Your task to perform on an android device: toggle improve location accuracy Image 0: 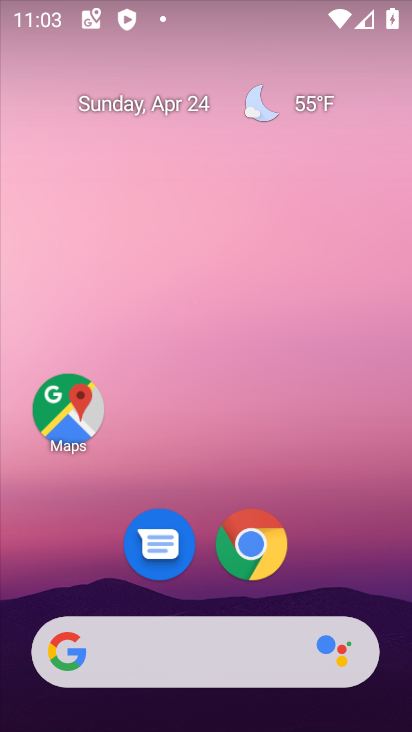
Step 0: drag from (327, 404) to (252, 89)
Your task to perform on an android device: toggle improve location accuracy Image 1: 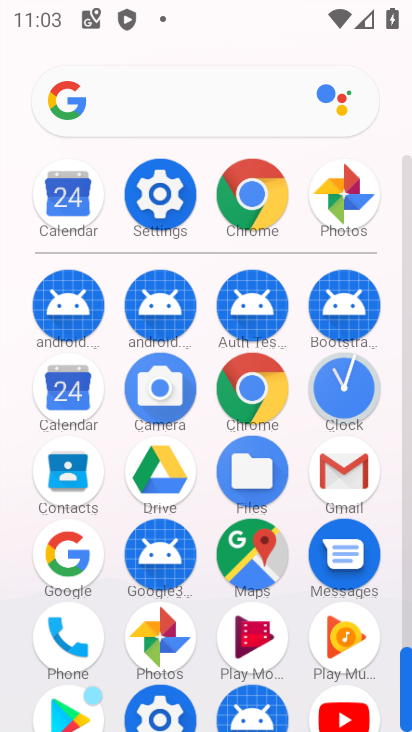
Step 1: click (165, 191)
Your task to perform on an android device: toggle improve location accuracy Image 2: 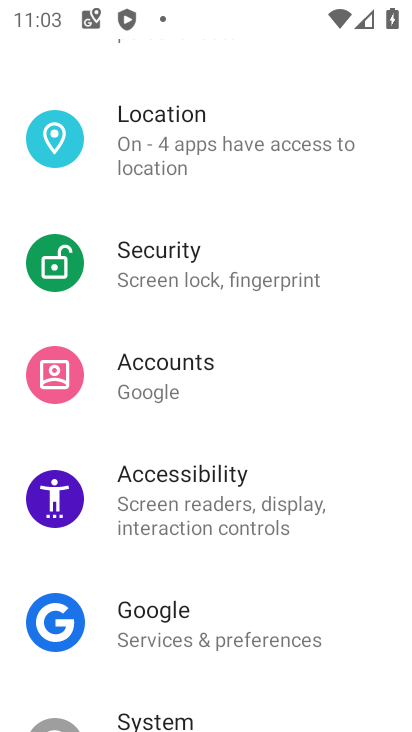
Step 2: click (214, 154)
Your task to perform on an android device: toggle improve location accuracy Image 3: 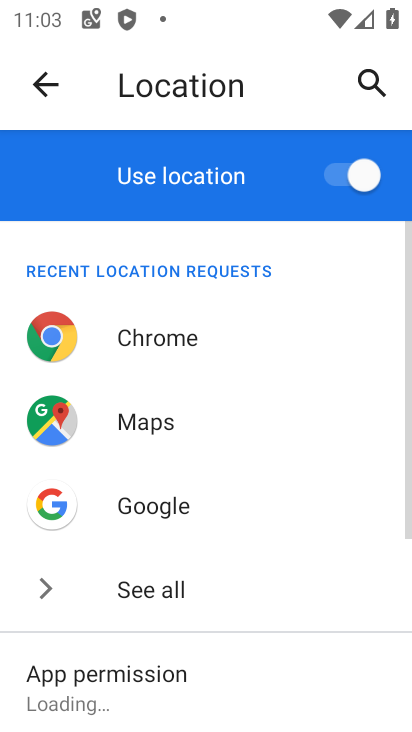
Step 3: drag from (193, 665) to (190, 333)
Your task to perform on an android device: toggle improve location accuracy Image 4: 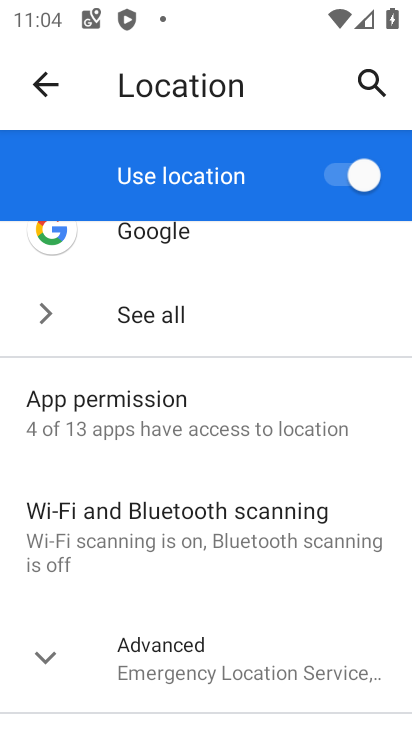
Step 4: click (192, 674)
Your task to perform on an android device: toggle improve location accuracy Image 5: 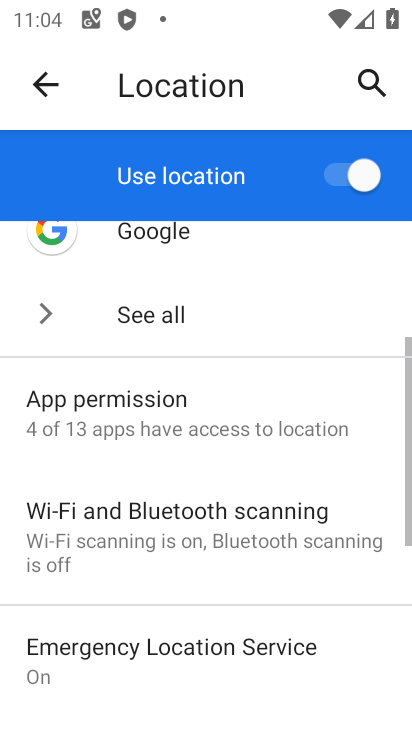
Step 5: drag from (171, 577) to (125, 226)
Your task to perform on an android device: toggle improve location accuracy Image 6: 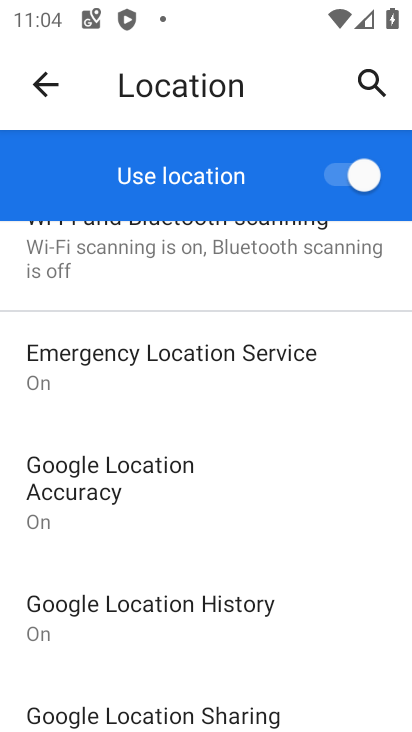
Step 6: click (93, 485)
Your task to perform on an android device: toggle improve location accuracy Image 7: 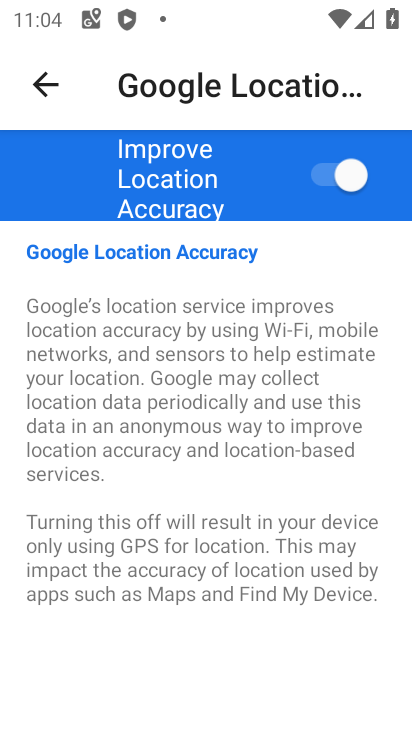
Step 7: click (350, 179)
Your task to perform on an android device: toggle improve location accuracy Image 8: 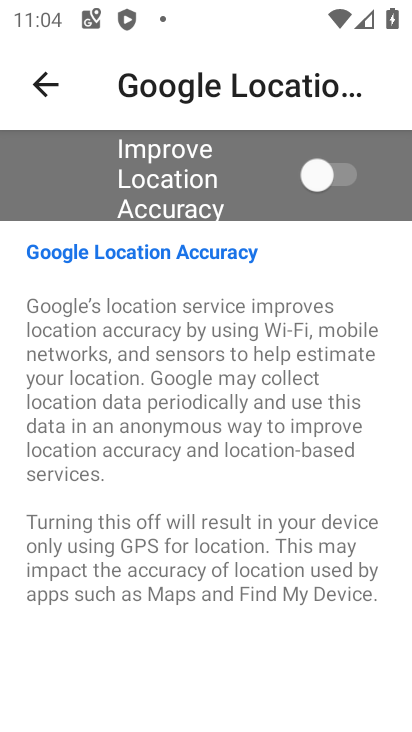
Step 8: task complete